Your task to perform on an android device: Open battery settings Image 0: 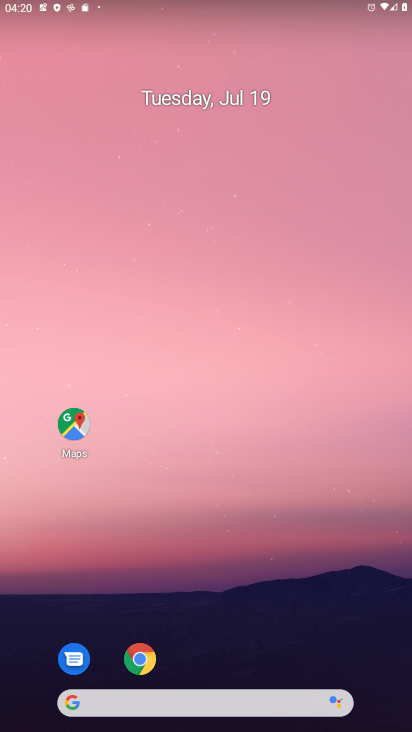
Step 0: press home button
Your task to perform on an android device: Open battery settings Image 1: 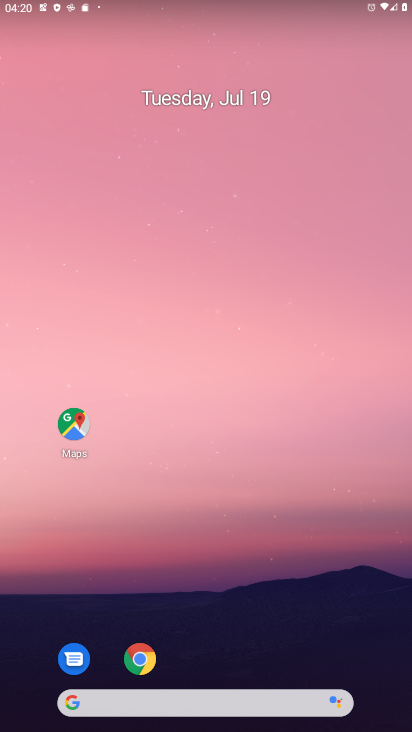
Step 1: drag from (235, 642) to (301, 0)
Your task to perform on an android device: Open battery settings Image 2: 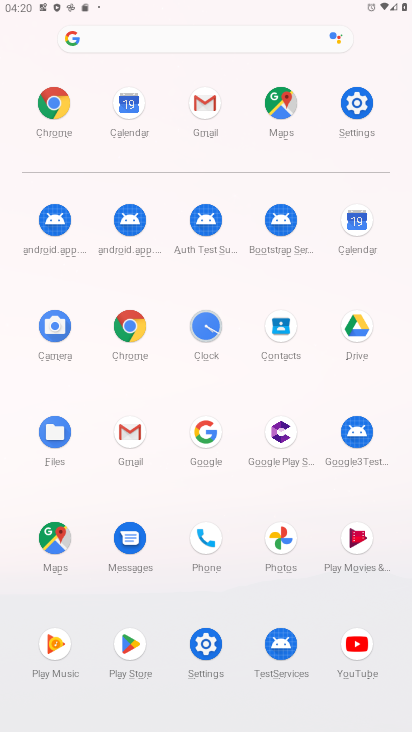
Step 2: click (361, 111)
Your task to perform on an android device: Open battery settings Image 3: 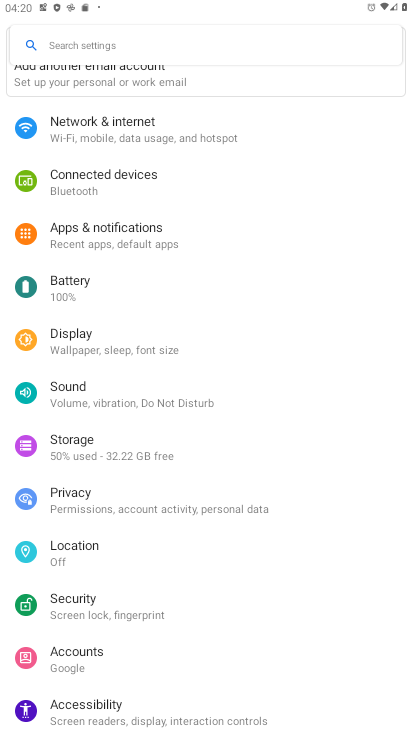
Step 3: click (125, 296)
Your task to perform on an android device: Open battery settings Image 4: 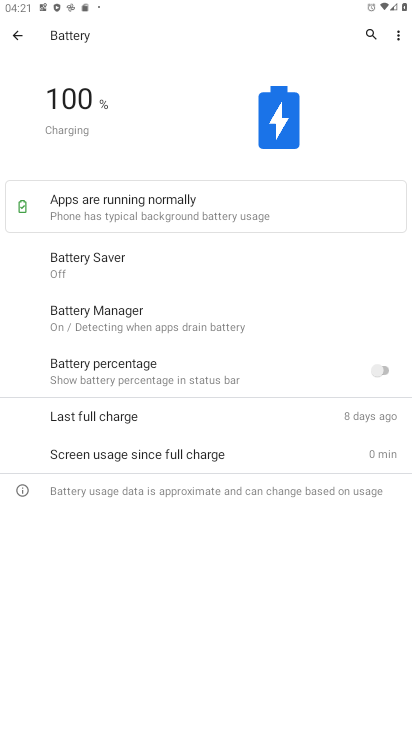
Step 4: task complete